Your task to perform on an android device: change notification settings in the gmail app Image 0: 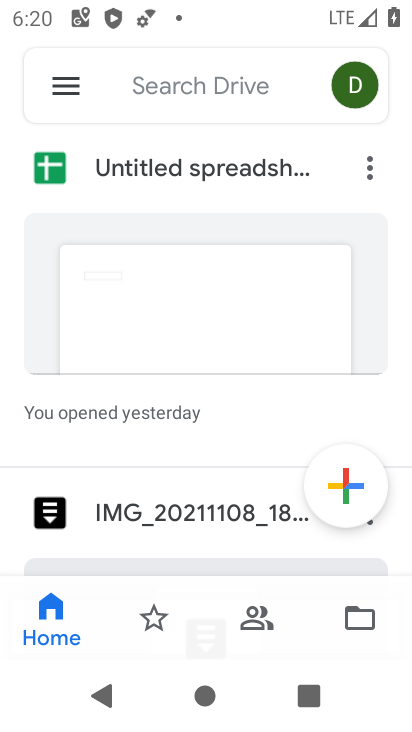
Step 0: press home button
Your task to perform on an android device: change notification settings in the gmail app Image 1: 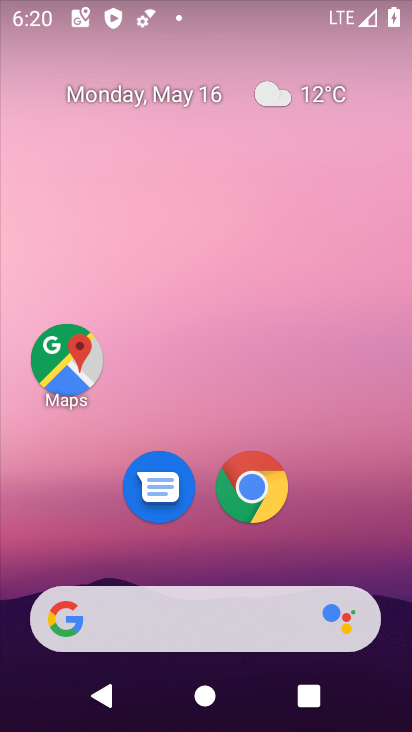
Step 1: drag from (362, 537) to (198, 55)
Your task to perform on an android device: change notification settings in the gmail app Image 2: 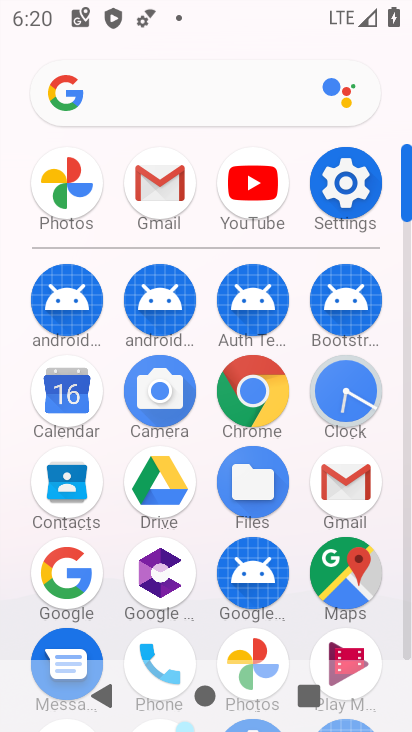
Step 2: click (157, 188)
Your task to perform on an android device: change notification settings in the gmail app Image 3: 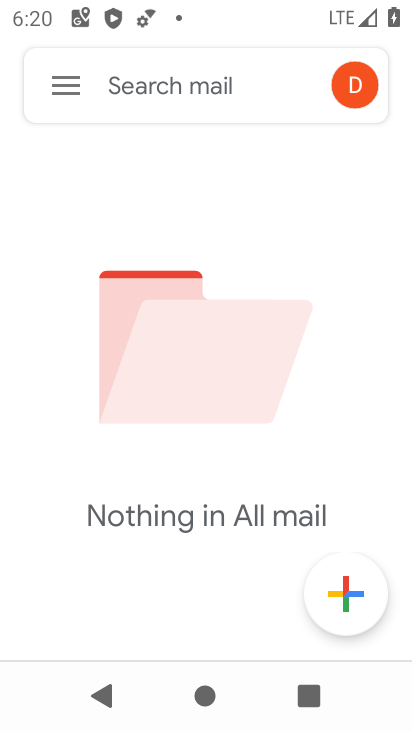
Step 3: click (53, 66)
Your task to perform on an android device: change notification settings in the gmail app Image 4: 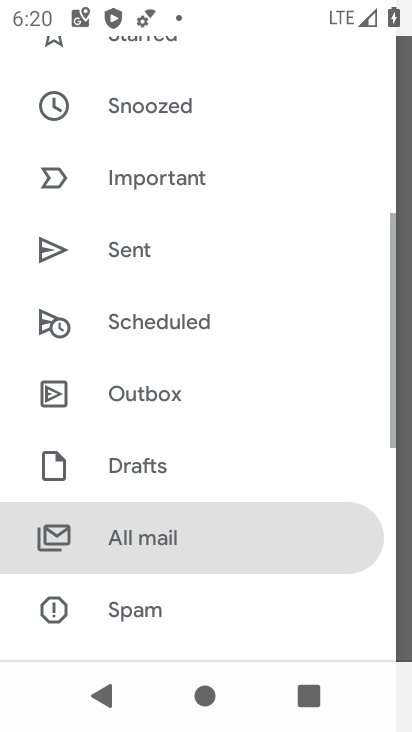
Step 4: drag from (143, 596) to (336, 65)
Your task to perform on an android device: change notification settings in the gmail app Image 5: 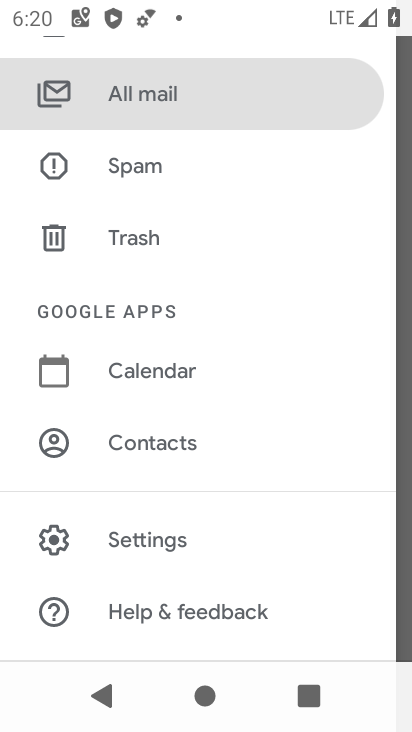
Step 5: click (152, 540)
Your task to perform on an android device: change notification settings in the gmail app Image 6: 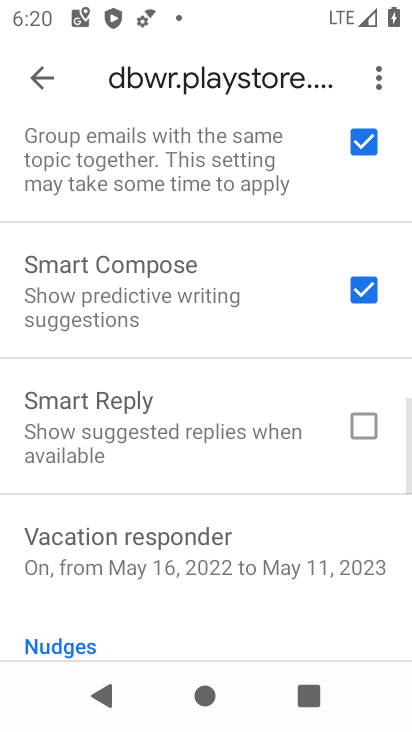
Step 6: drag from (203, 217) to (220, 716)
Your task to perform on an android device: change notification settings in the gmail app Image 7: 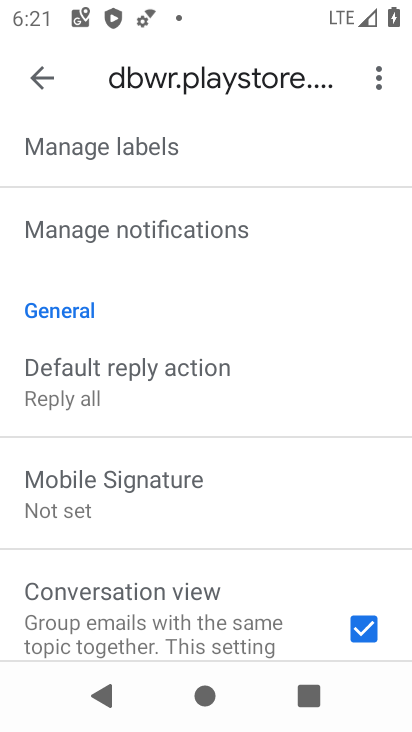
Step 7: click (189, 228)
Your task to perform on an android device: change notification settings in the gmail app Image 8: 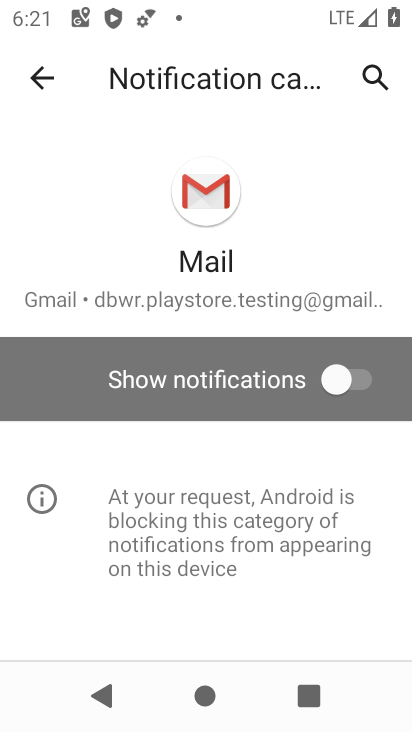
Step 8: click (345, 383)
Your task to perform on an android device: change notification settings in the gmail app Image 9: 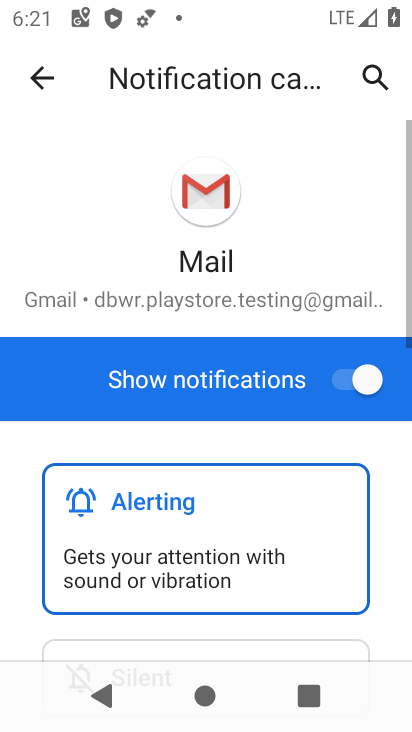
Step 9: task complete